Your task to perform on an android device: open a bookmark in the chrome app Image 0: 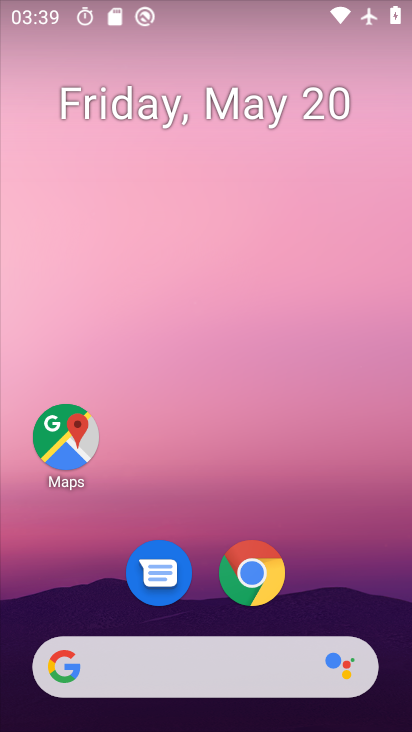
Step 0: click (254, 590)
Your task to perform on an android device: open a bookmark in the chrome app Image 1: 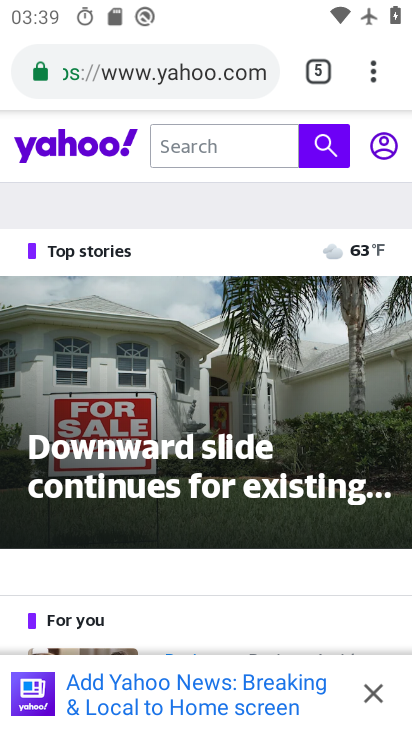
Step 1: click (379, 75)
Your task to perform on an android device: open a bookmark in the chrome app Image 2: 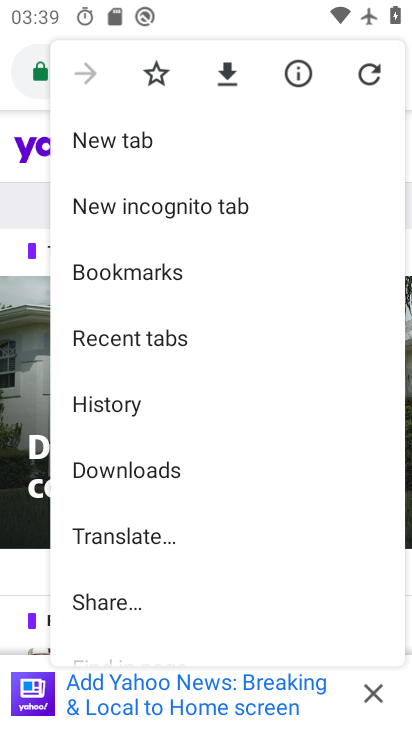
Step 2: click (186, 264)
Your task to perform on an android device: open a bookmark in the chrome app Image 3: 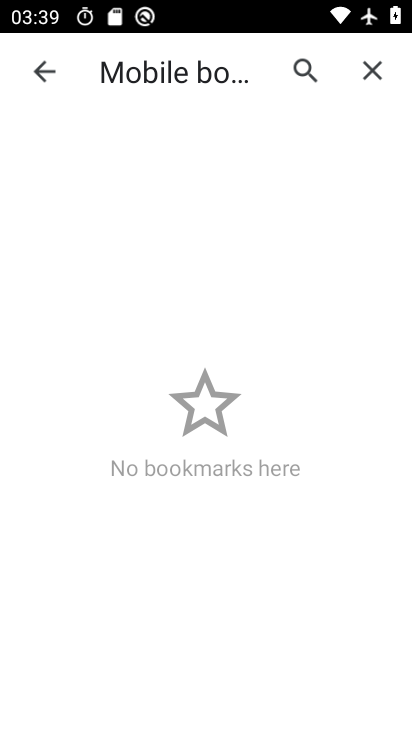
Step 3: task complete